Your task to perform on an android device: Show me popular videos on Youtube Image 0: 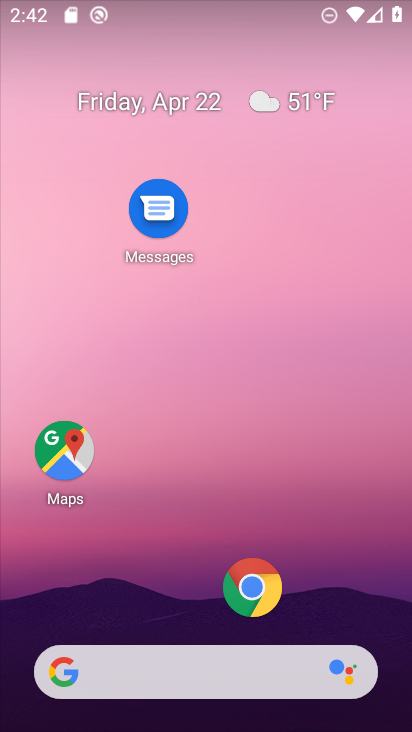
Step 0: drag from (186, 617) to (214, 155)
Your task to perform on an android device: Show me popular videos on Youtube Image 1: 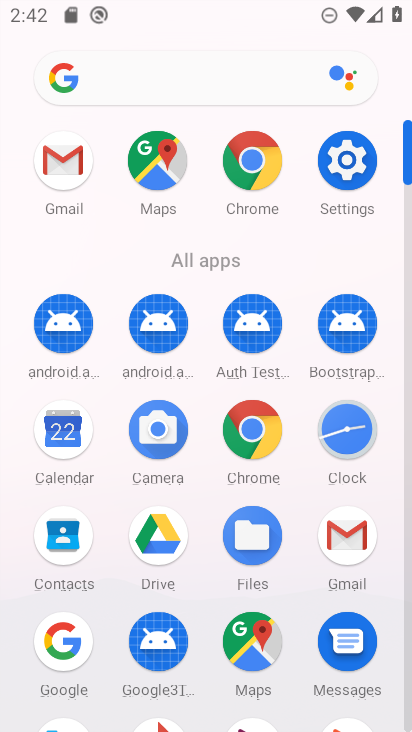
Step 1: drag from (209, 586) to (220, 284)
Your task to perform on an android device: Show me popular videos on Youtube Image 2: 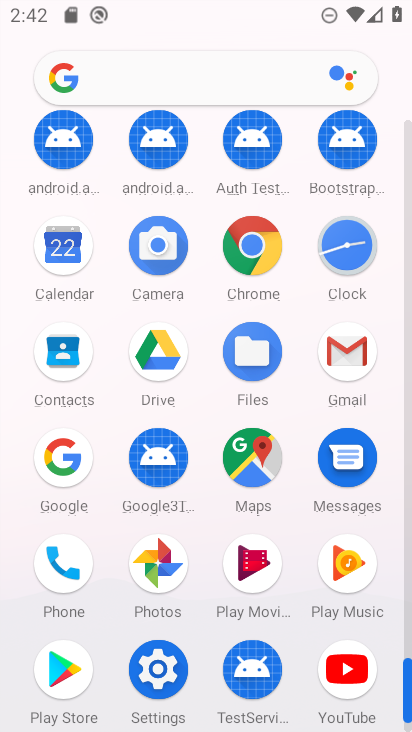
Step 2: click (335, 669)
Your task to perform on an android device: Show me popular videos on Youtube Image 3: 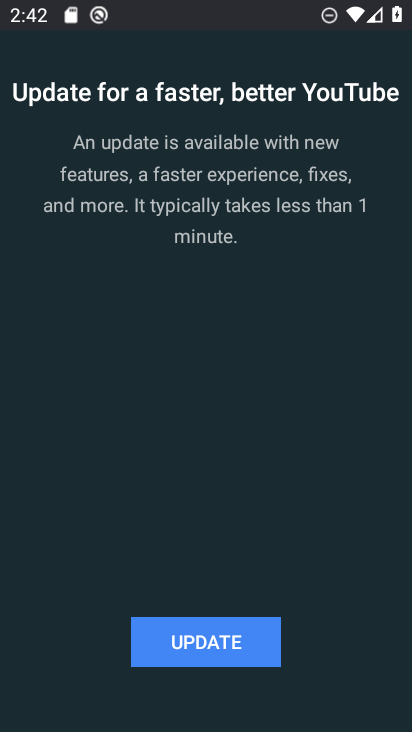
Step 3: click (218, 644)
Your task to perform on an android device: Show me popular videos on Youtube Image 4: 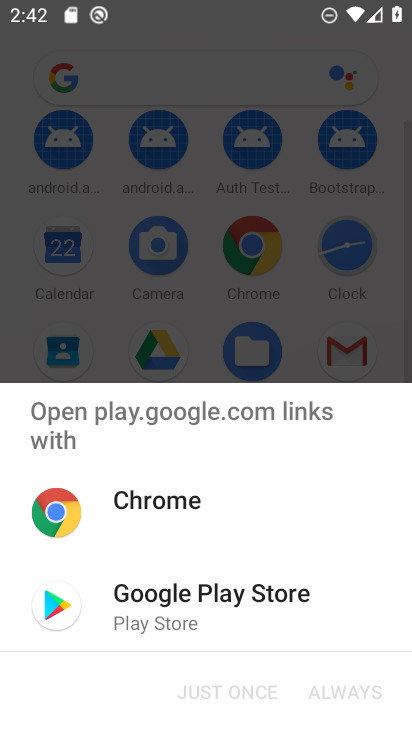
Step 4: click (216, 606)
Your task to perform on an android device: Show me popular videos on Youtube Image 5: 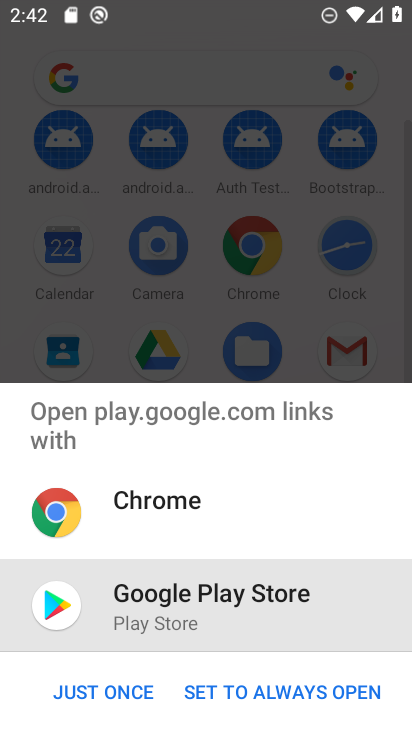
Step 5: click (134, 687)
Your task to perform on an android device: Show me popular videos on Youtube Image 6: 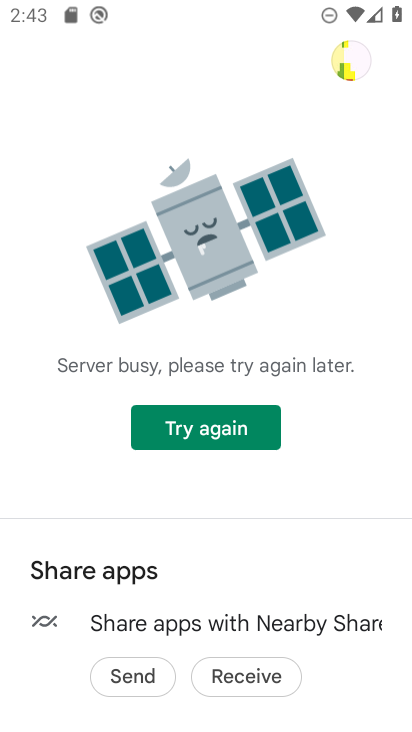
Step 6: click (184, 417)
Your task to perform on an android device: Show me popular videos on Youtube Image 7: 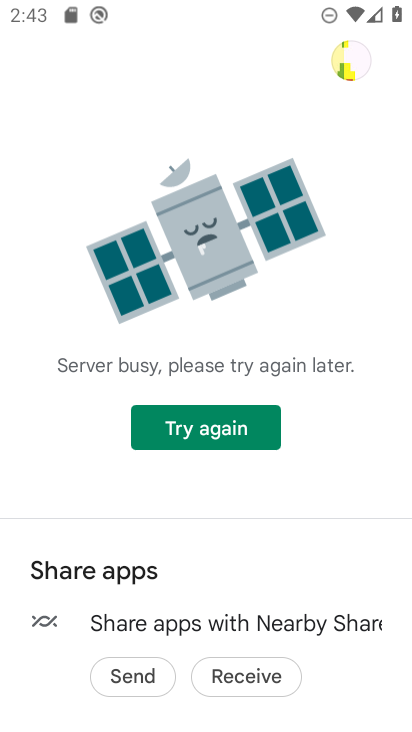
Step 7: press back button
Your task to perform on an android device: Show me popular videos on Youtube Image 8: 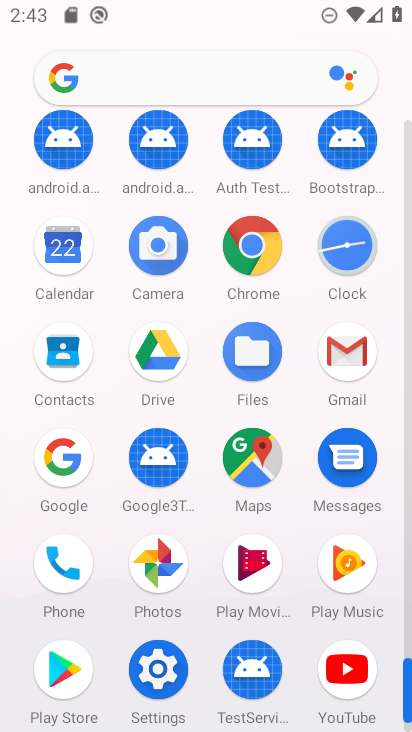
Step 8: click (338, 666)
Your task to perform on an android device: Show me popular videos on Youtube Image 9: 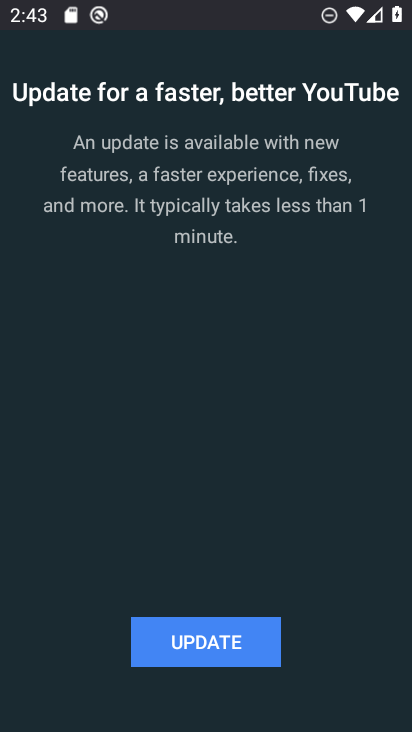
Step 9: click (203, 657)
Your task to perform on an android device: Show me popular videos on Youtube Image 10: 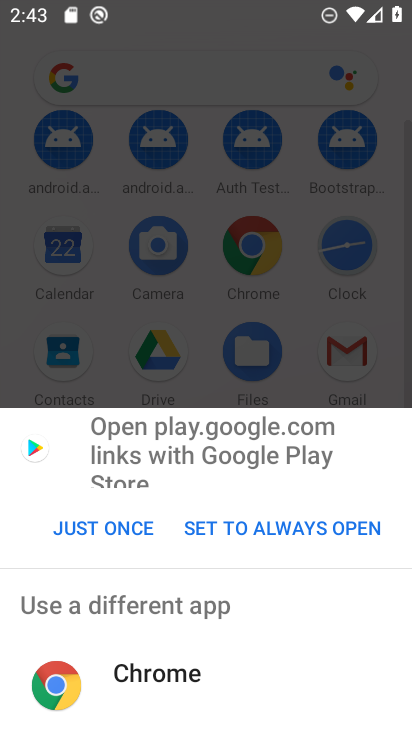
Step 10: click (105, 516)
Your task to perform on an android device: Show me popular videos on Youtube Image 11: 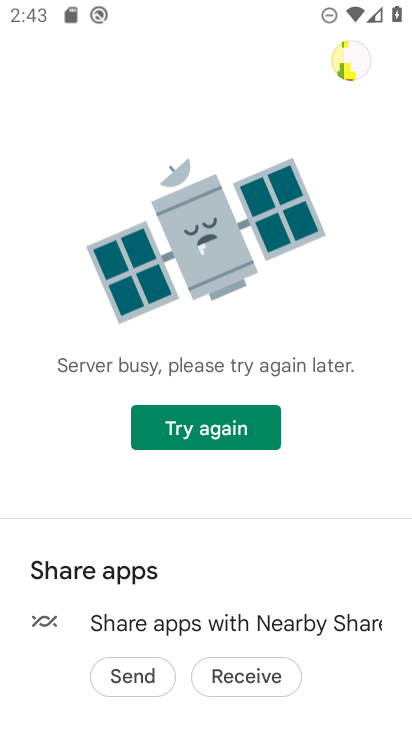
Step 11: task complete